Your task to perform on an android device: What is the recent news? Image 0: 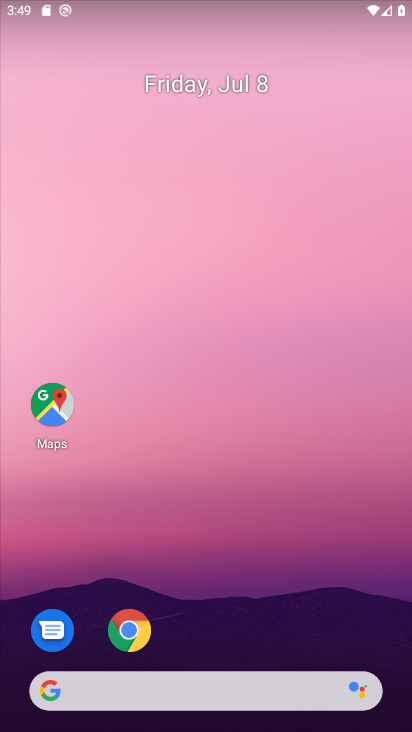
Step 0: click (200, 683)
Your task to perform on an android device: What is the recent news? Image 1: 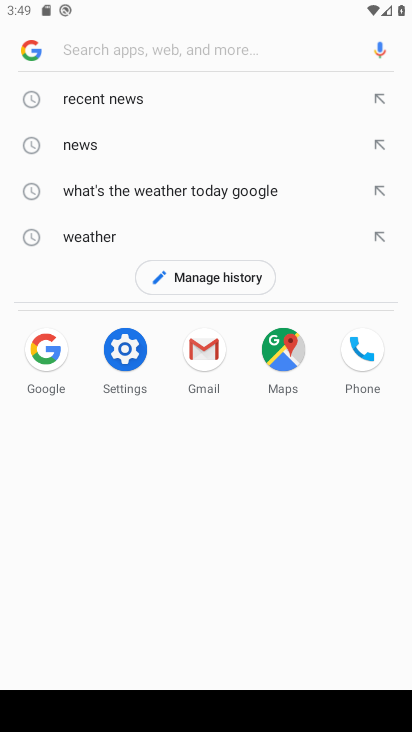
Step 1: type "what is the recent news"
Your task to perform on an android device: What is the recent news? Image 2: 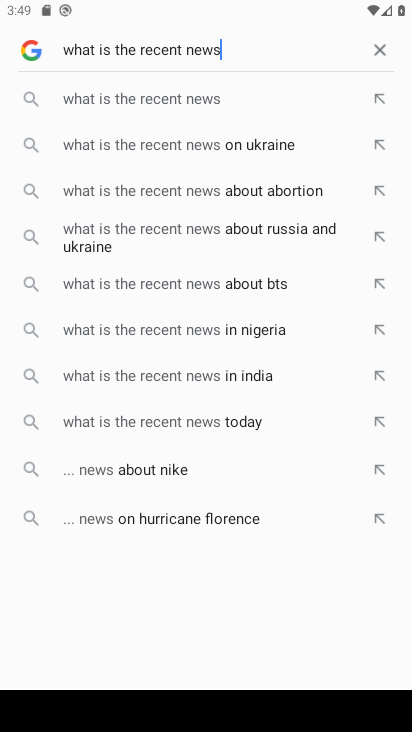
Step 2: click (218, 102)
Your task to perform on an android device: What is the recent news? Image 3: 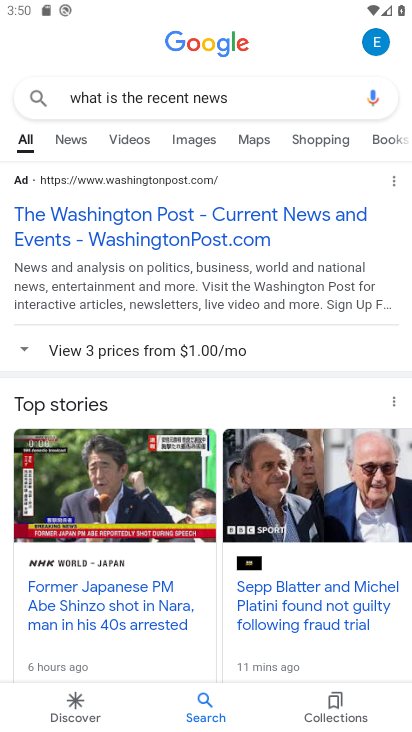
Step 3: click (76, 130)
Your task to perform on an android device: What is the recent news? Image 4: 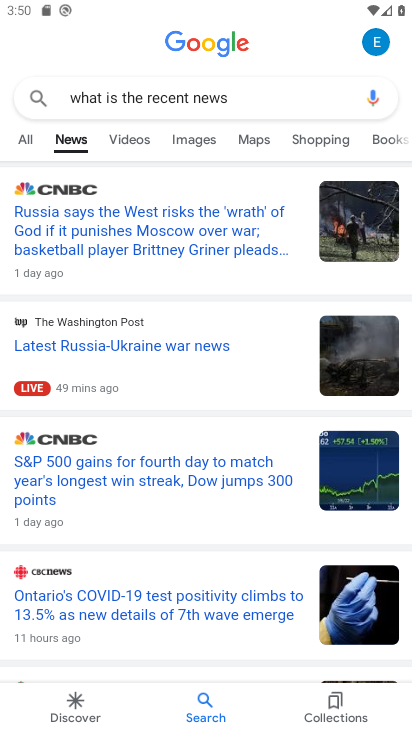
Step 4: task complete